Your task to perform on an android device: turn vacation reply on in the gmail app Image 0: 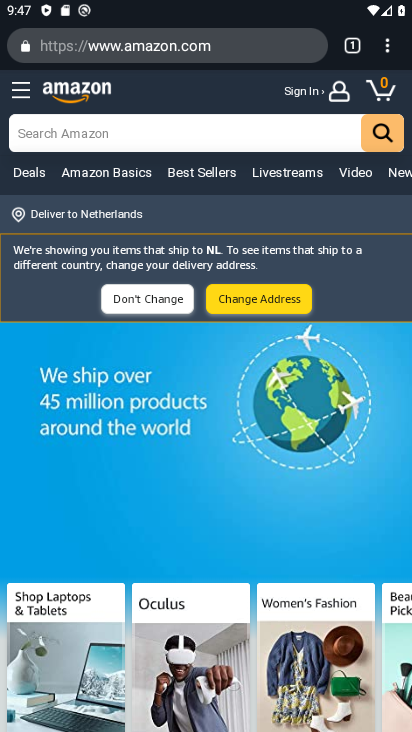
Step 0: press home button
Your task to perform on an android device: turn vacation reply on in the gmail app Image 1: 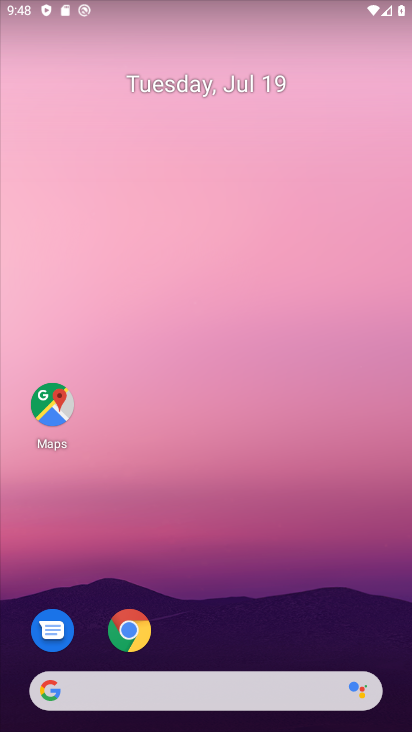
Step 1: drag from (29, 541) to (221, 144)
Your task to perform on an android device: turn vacation reply on in the gmail app Image 2: 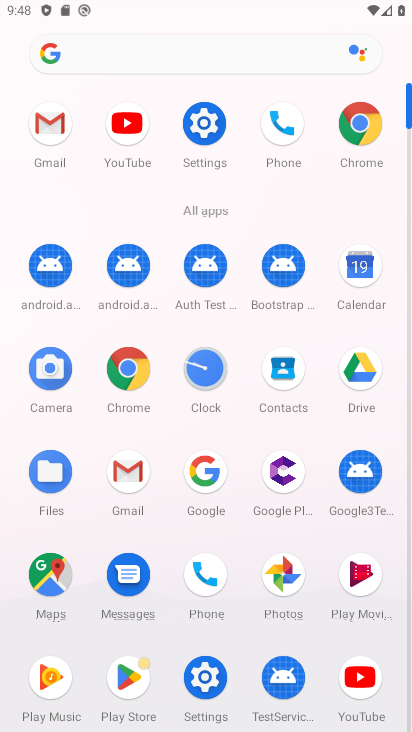
Step 2: click (44, 127)
Your task to perform on an android device: turn vacation reply on in the gmail app Image 3: 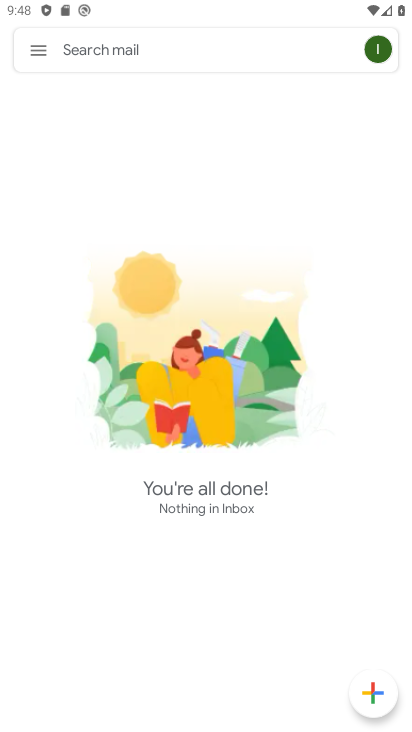
Step 3: click (43, 51)
Your task to perform on an android device: turn vacation reply on in the gmail app Image 4: 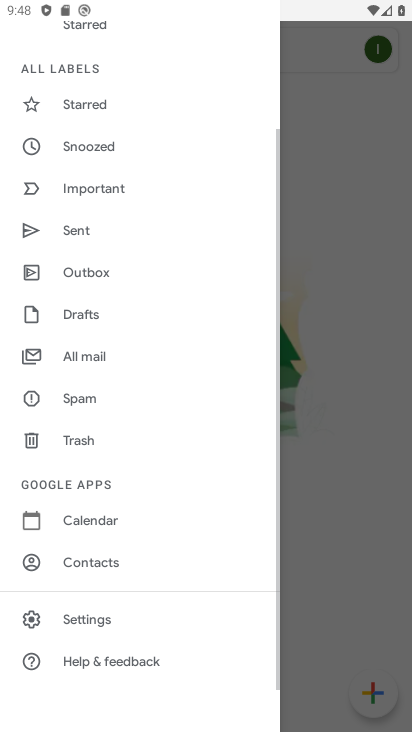
Step 4: click (132, 633)
Your task to perform on an android device: turn vacation reply on in the gmail app Image 5: 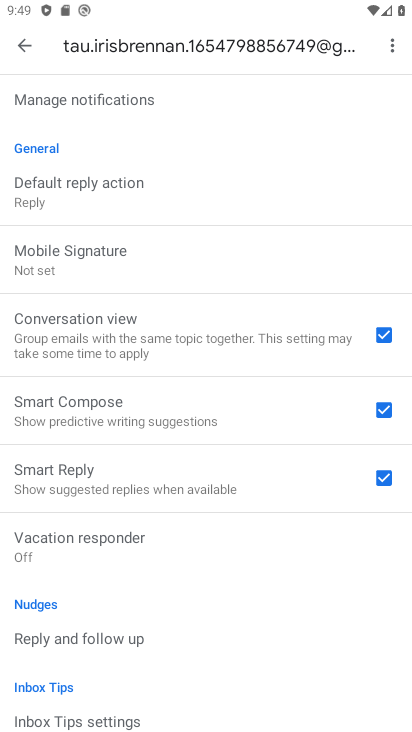
Step 5: task complete